Your task to perform on an android device: set an alarm Image 0: 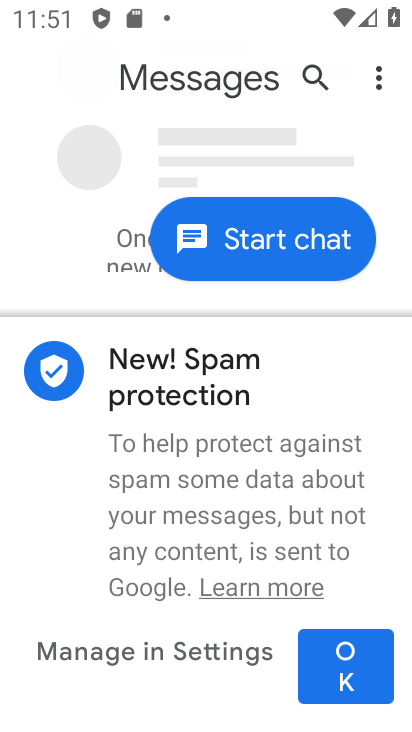
Step 0: press back button
Your task to perform on an android device: set an alarm Image 1: 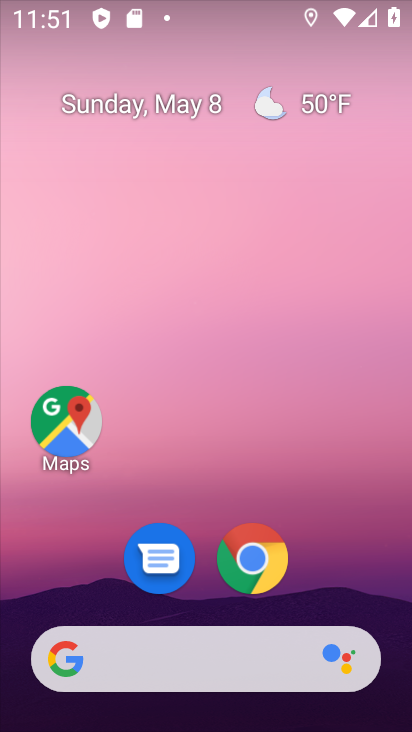
Step 1: drag from (196, 638) to (160, 175)
Your task to perform on an android device: set an alarm Image 2: 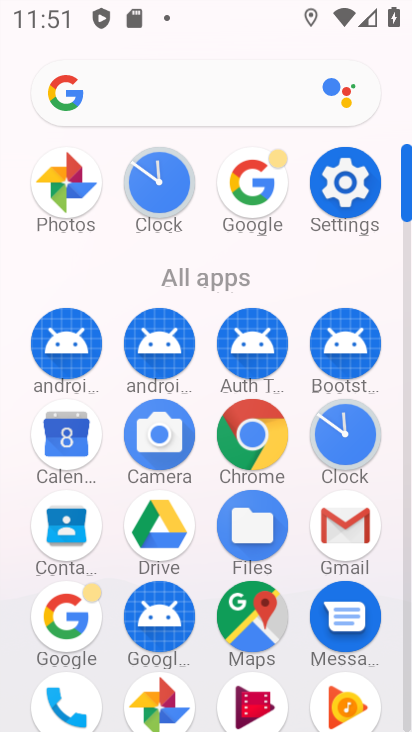
Step 2: click (156, 197)
Your task to perform on an android device: set an alarm Image 3: 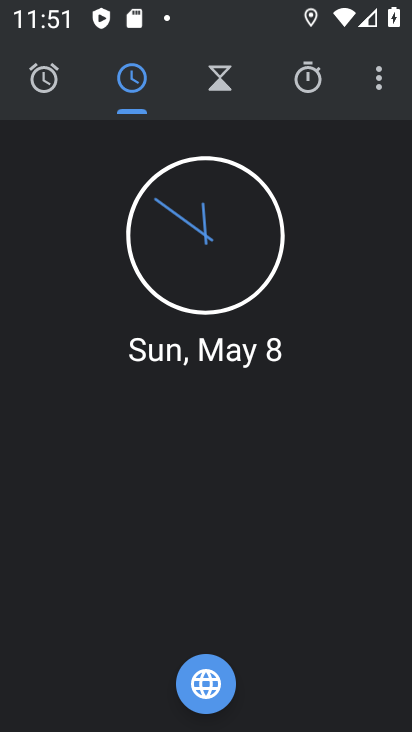
Step 3: click (56, 102)
Your task to perform on an android device: set an alarm Image 4: 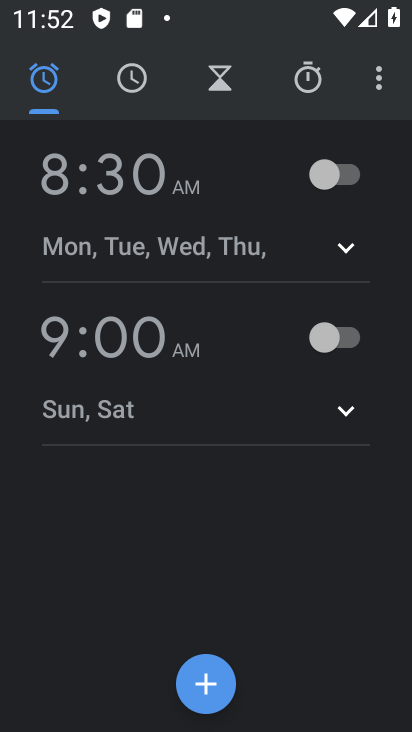
Step 4: click (203, 689)
Your task to perform on an android device: set an alarm Image 5: 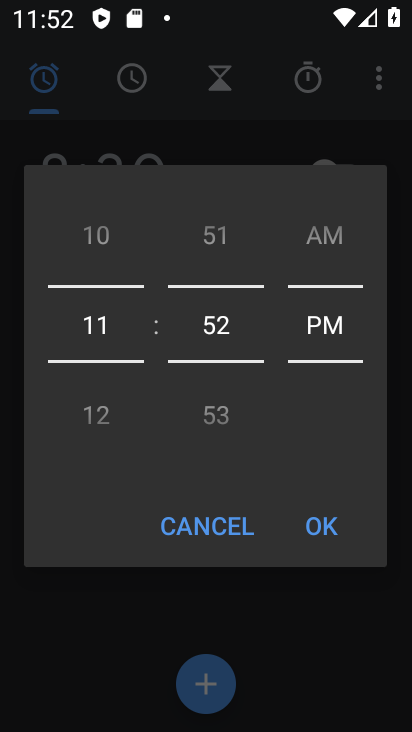
Step 5: task complete